Your task to perform on an android device: Open Google Image 0: 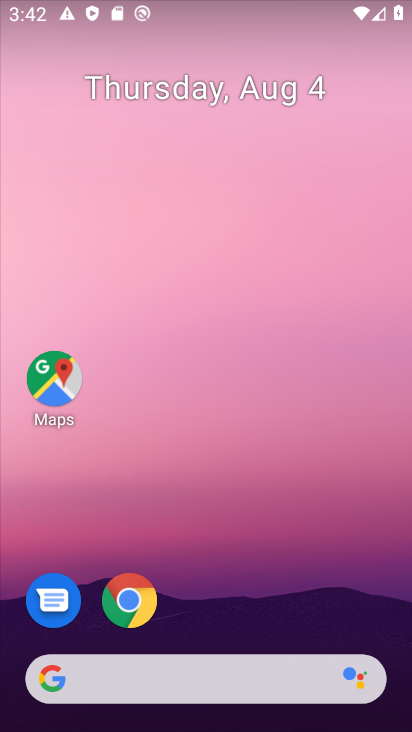
Step 0: click (411, 114)
Your task to perform on an android device: Open Google Image 1: 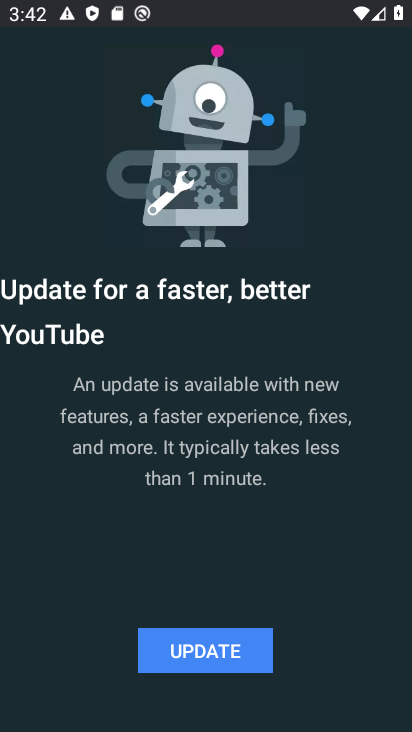
Step 1: press home button
Your task to perform on an android device: Open Google Image 2: 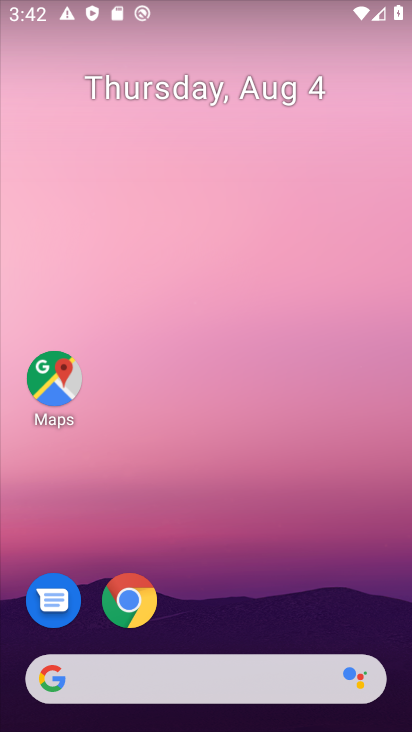
Step 2: drag from (279, 610) to (298, 148)
Your task to perform on an android device: Open Google Image 3: 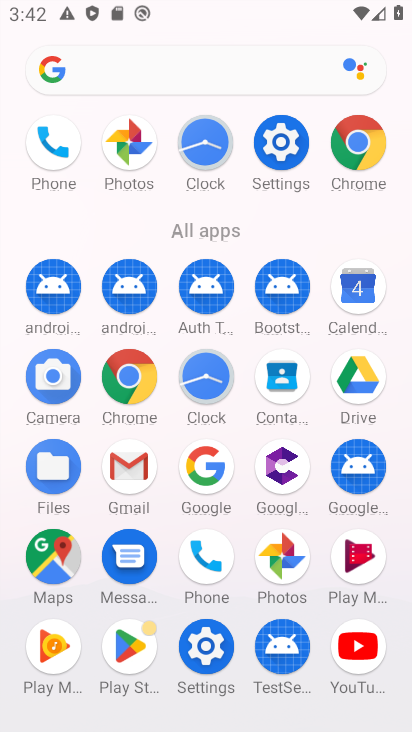
Step 3: click (214, 471)
Your task to perform on an android device: Open Google Image 4: 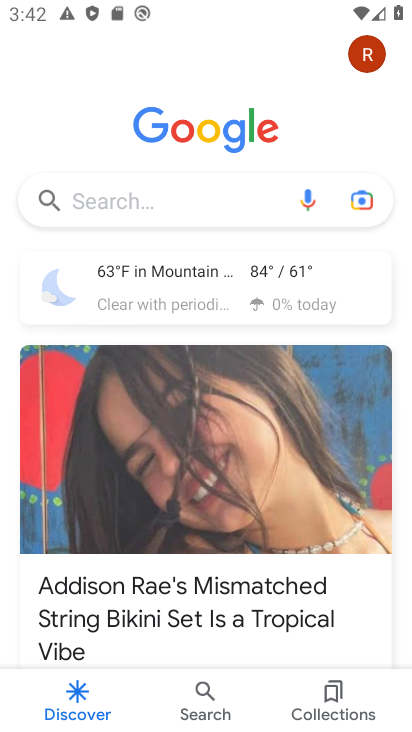
Step 4: task complete